Your task to perform on an android device: open a new tab in the chrome app Image 0: 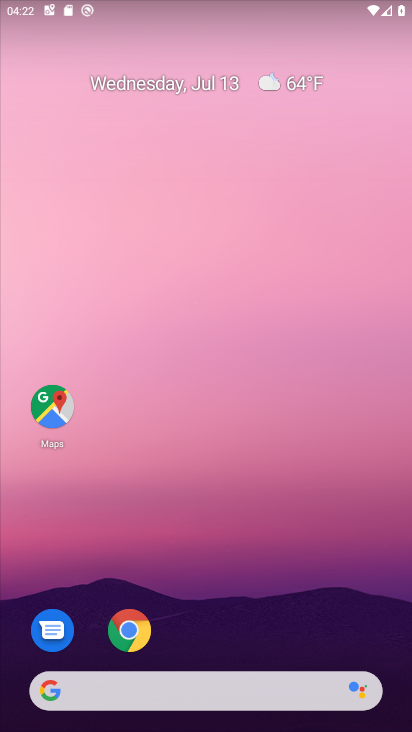
Step 0: click (128, 636)
Your task to perform on an android device: open a new tab in the chrome app Image 1: 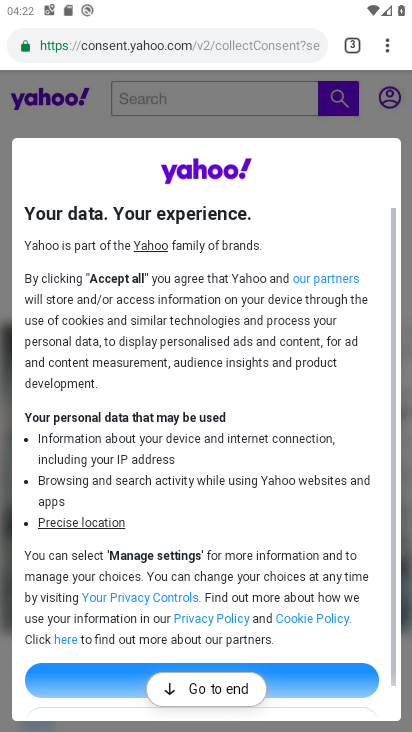
Step 1: click (348, 40)
Your task to perform on an android device: open a new tab in the chrome app Image 2: 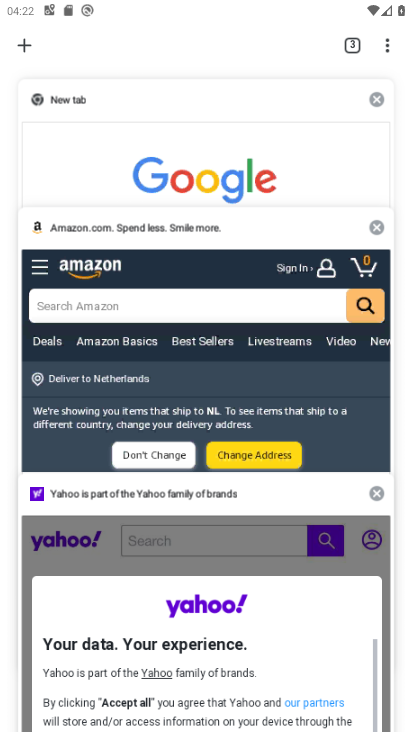
Step 2: click (28, 40)
Your task to perform on an android device: open a new tab in the chrome app Image 3: 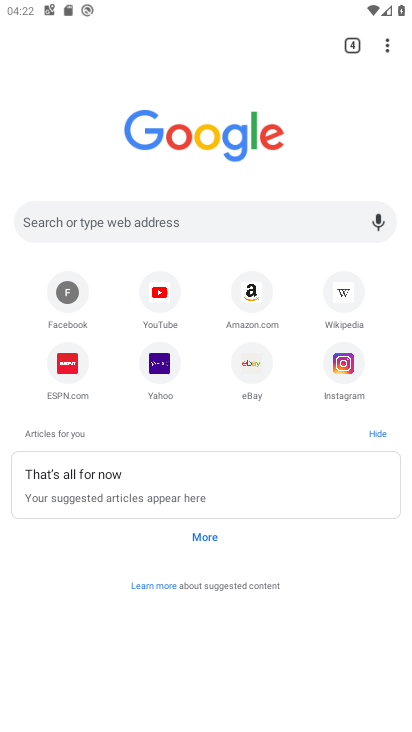
Step 3: task complete